Your task to perform on an android device: Open Android settings Image 0: 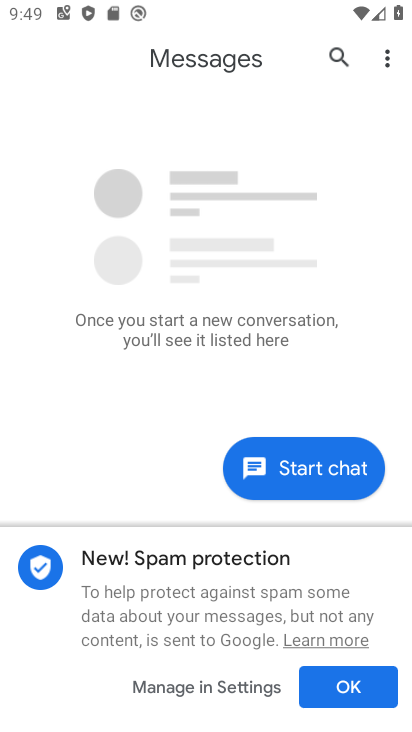
Step 0: press back button
Your task to perform on an android device: Open Android settings Image 1: 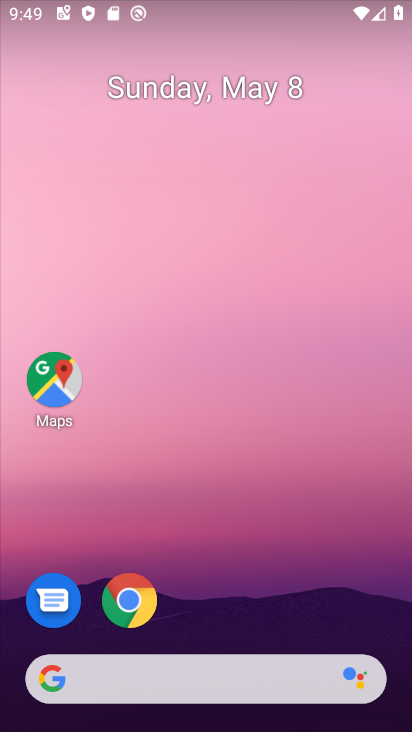
Step 1: drag from (164, 686) to (137, 267)
Your task to perform on an android device: Open Android settings Image 2: 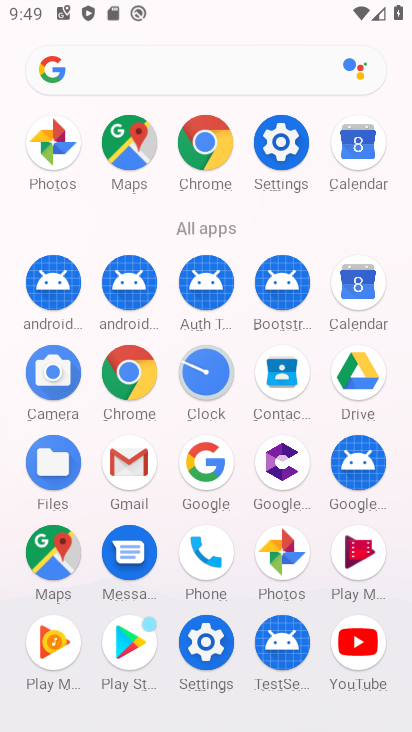
Step 2: click (188, 648)
Your task to perform on an android device: Open Android settings Image 3: 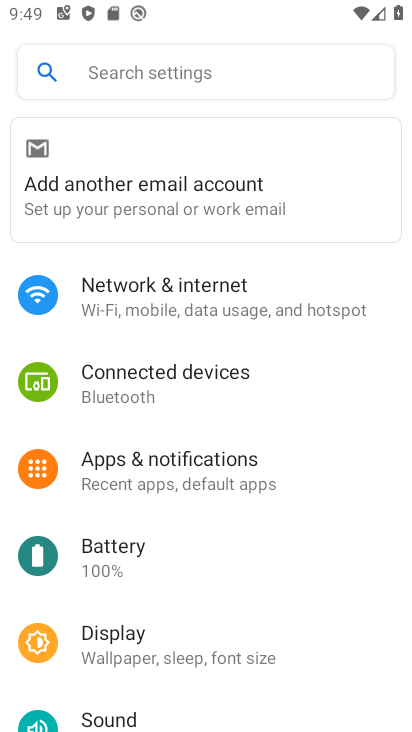
Step 3: drag from (226, 555) to (14, 73)
Your task to perform on an android device: Open Android settings Image 4: 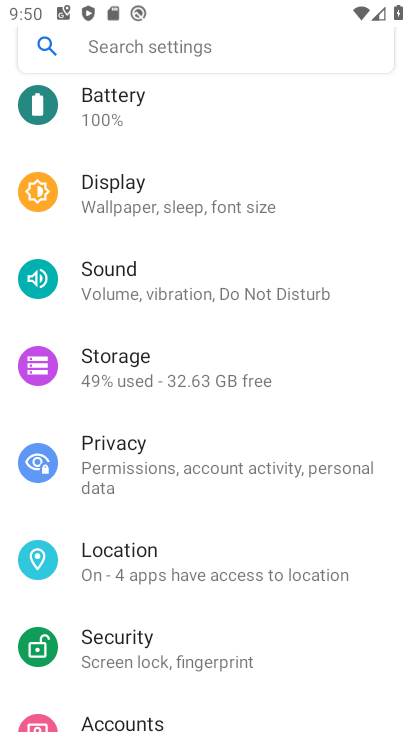
Step 4: drag from (210, 535) to (174, 86)
Your task to perform on an android device: Open Android settings Image 5: 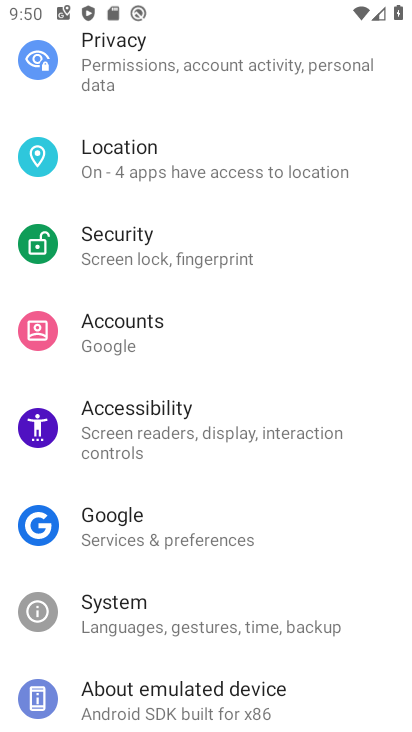
Step 5: click (232, 686)
Your task to perform on an android device: Open Android settings Image 6: 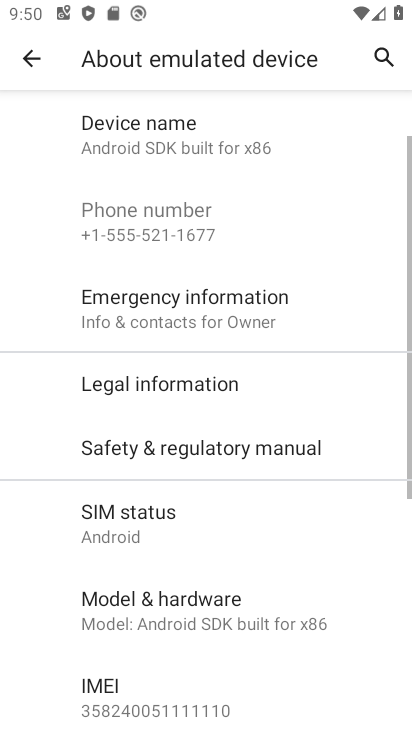
Step 6: task complete